Your task to perform on an android device: Search for "usb-a" on walmart, select the first entry, and add it to the cart. Image 0: 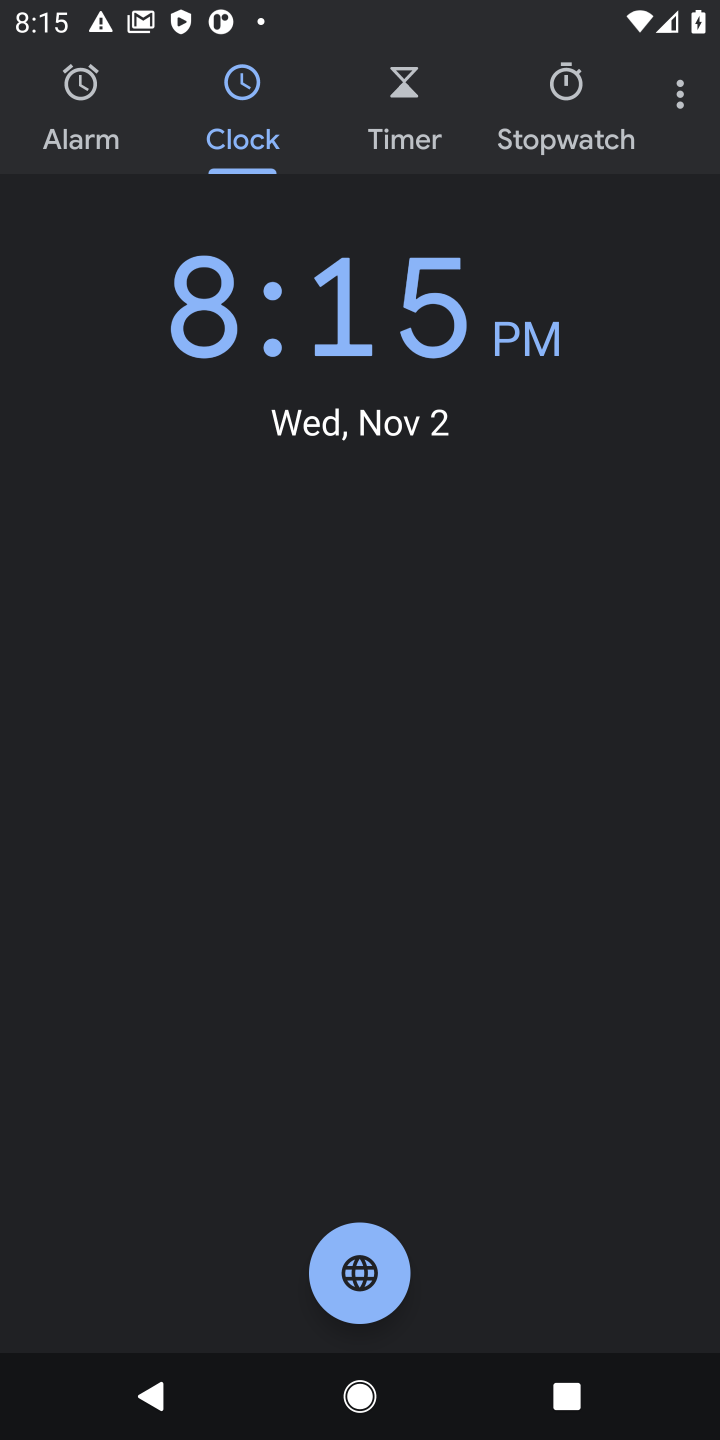
Step 0: press home button
Your task to perform on an android device: Search for "usb-a" on walmart, select the first entry, and add it to the cart. Image 1: 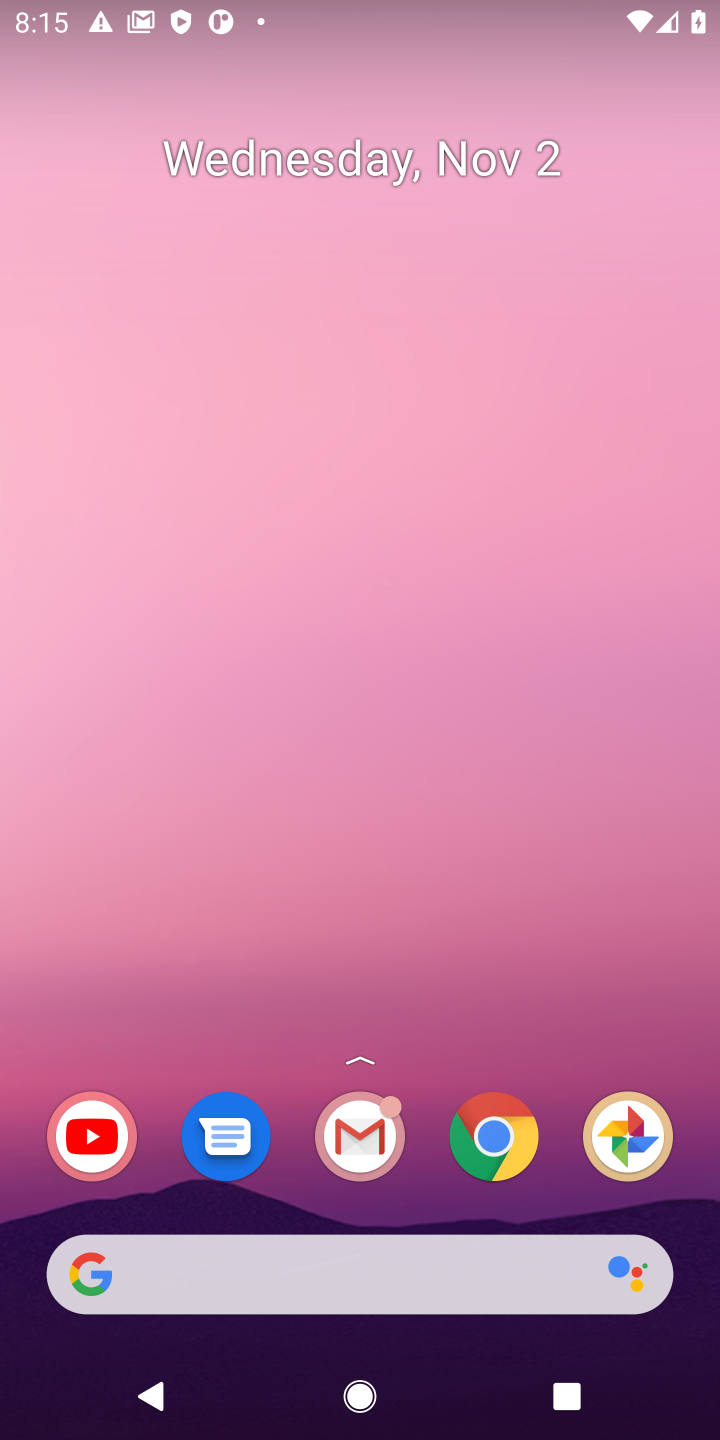
Step 1: drag from (286, 1172) to (476, 134)
Your task to perform on an android device: Search for "usb-a" on walmart, select the first entry, and add it to the cart. Image 2: 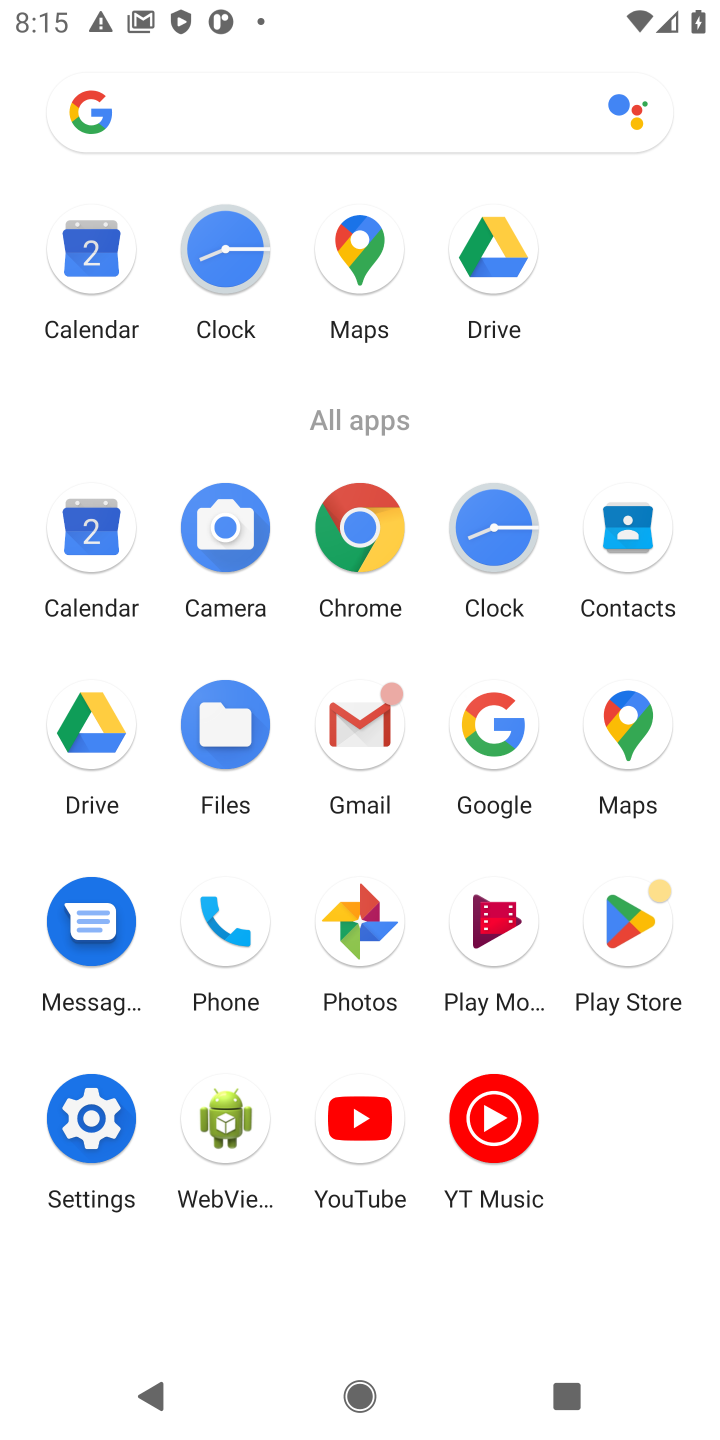
Step 2: click (467, 707)
Your task to perform on an android device: Search for "usb-a" on walmart, select the first entry, and add it to the cart. Image 3: 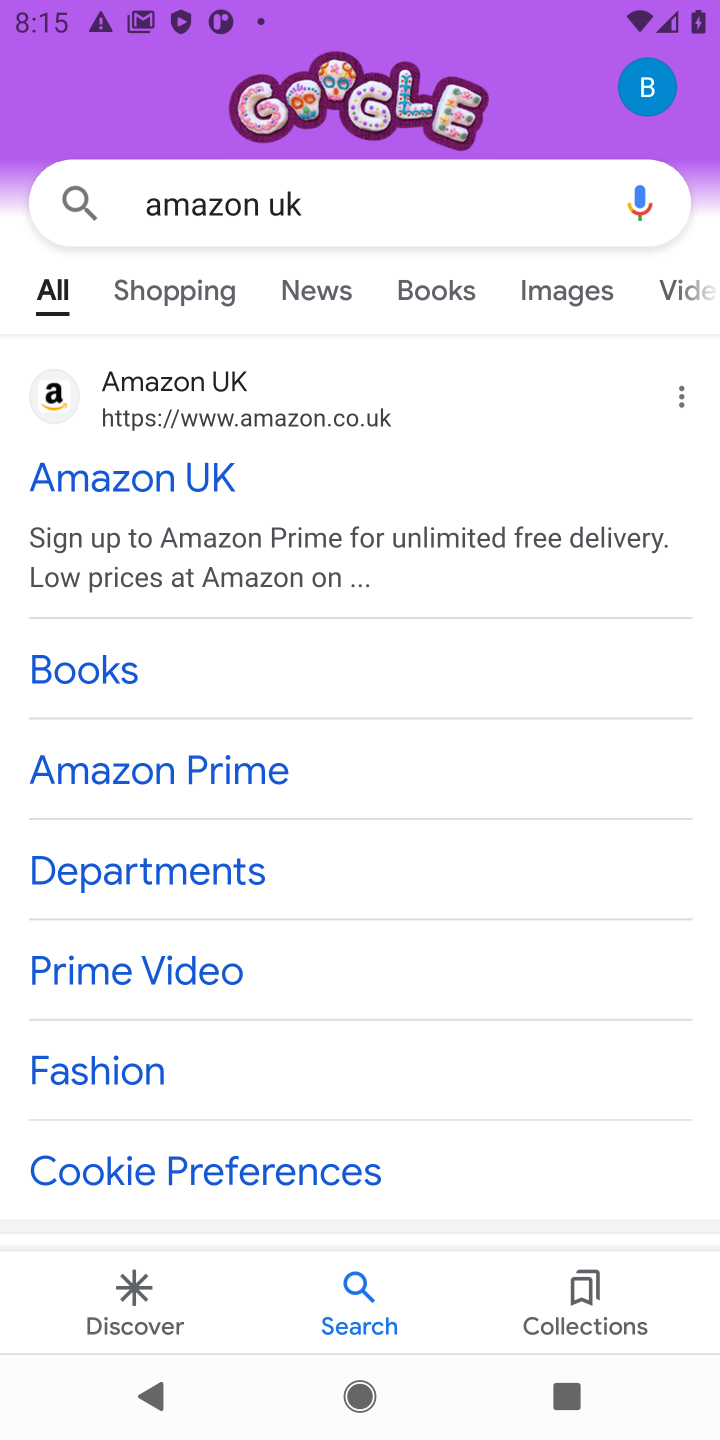
Step 3: click (379, 189)
Your task to perform on an android device: Search for "usb-a" on walmart, select the first entry, and add it to the cart. Image 4: 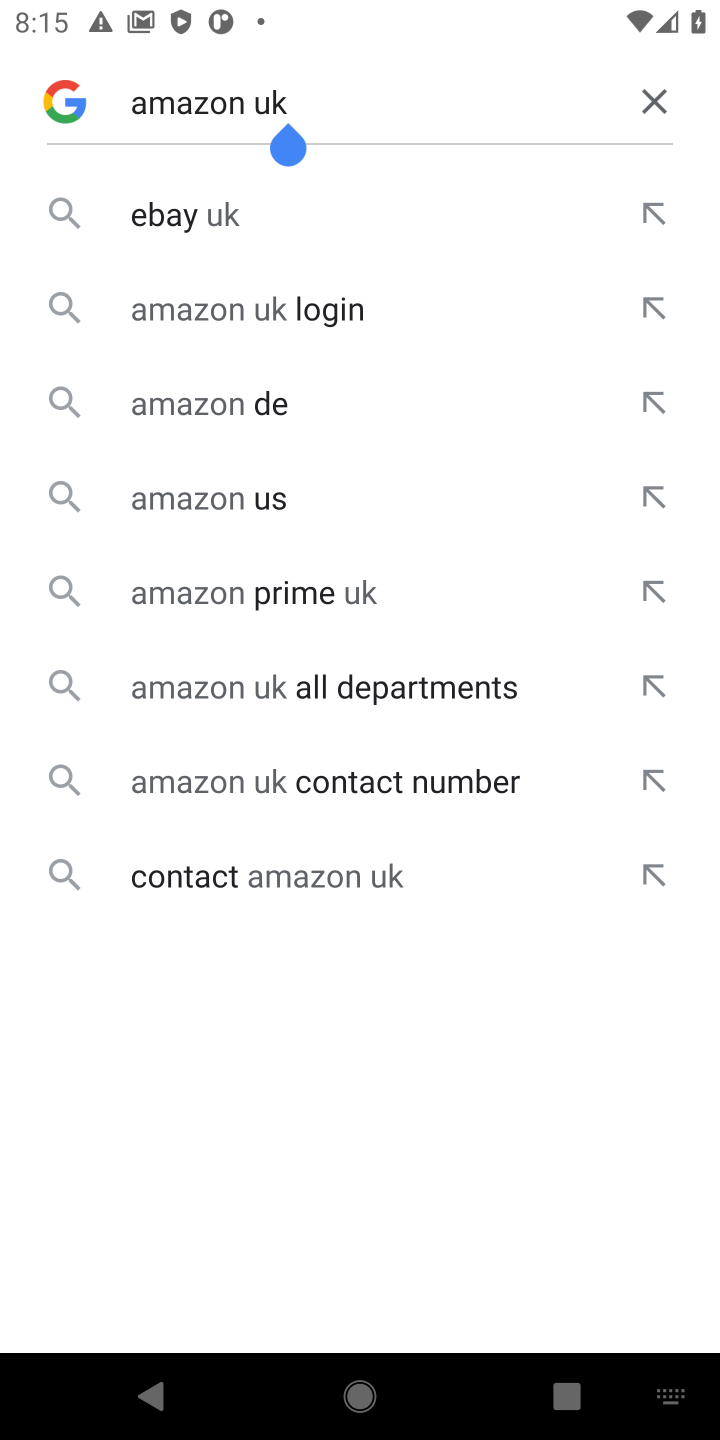
Step 4: click (662, 99)
Your task to perform on an android device: Search for "usb-a" on walmart, select the first entry, and add it to the cart. Image 5: 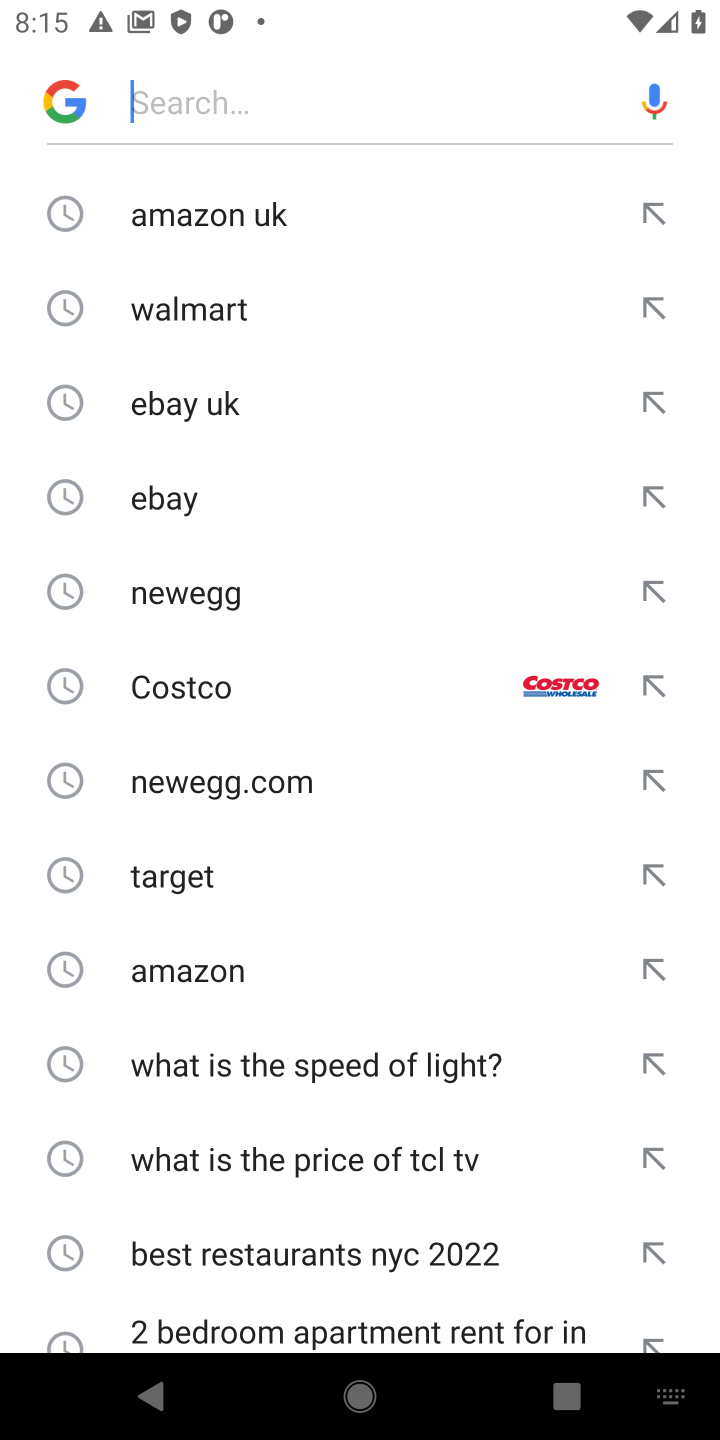
Step 5: click (247, 291)
Your task to perform on an android device: Search for "usb-a" on walmart, select the first entry, and add it to the cart. Image 6: 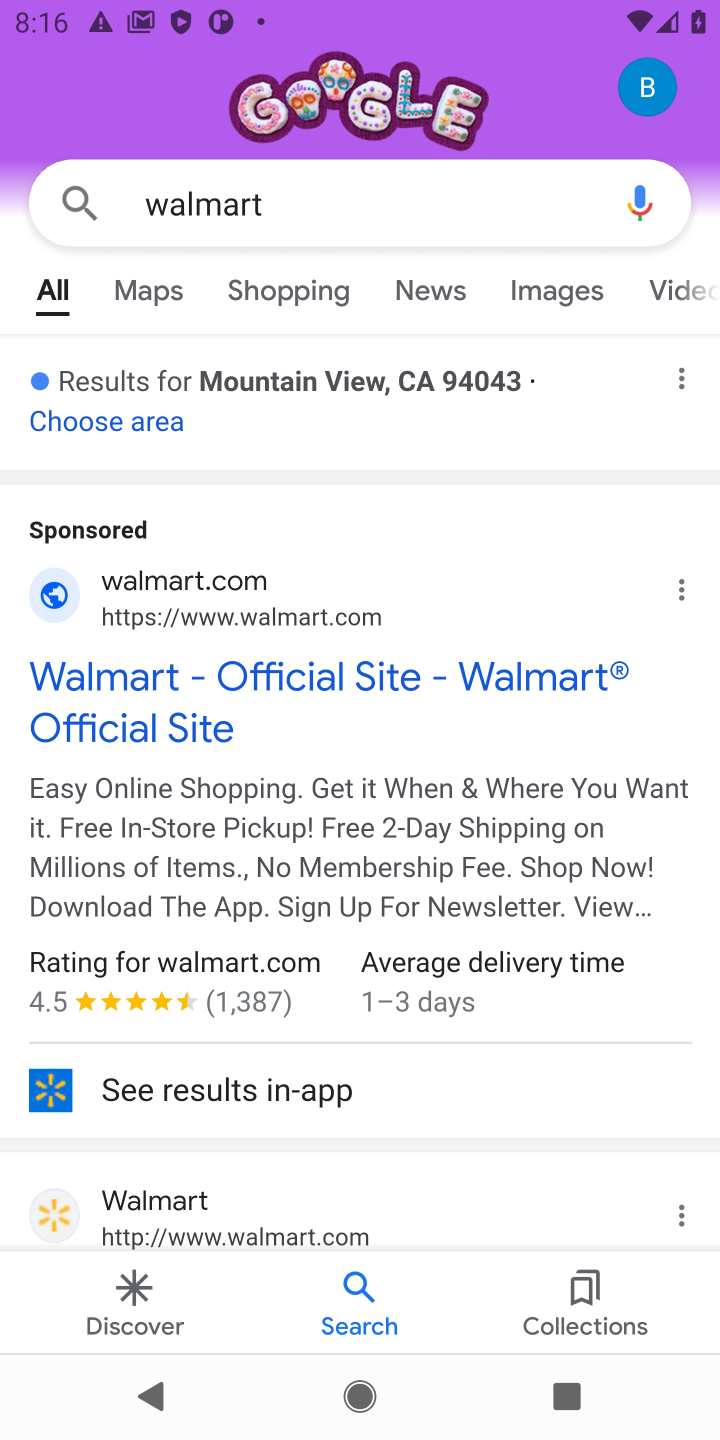
Step 6: drag from (189, 1144) to (236, 725)
Your task to perform on an android device: Search for "usb-a" on walmart, select the first entry, and add it to the cart. Image 7: 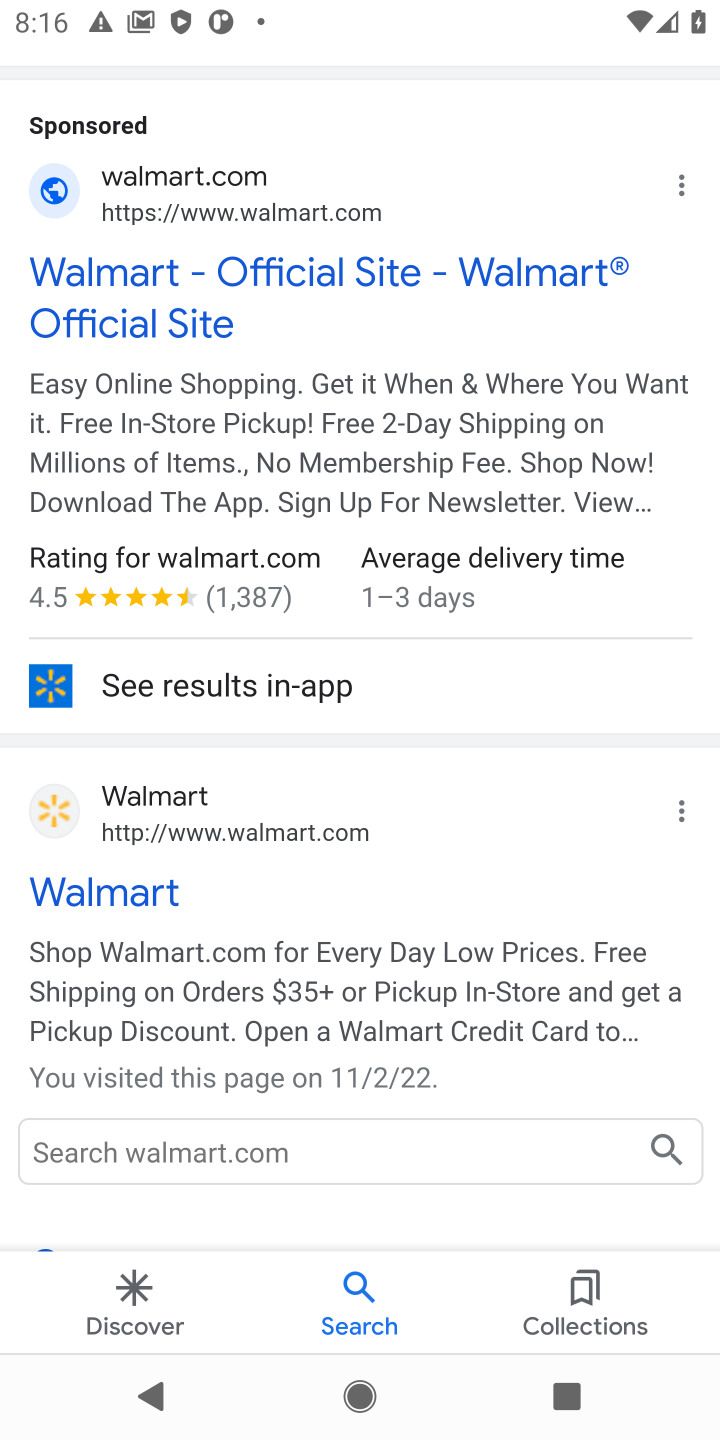
Step 7: click (54, 826)
Your task to perform on an android device: Search for "usb-a" on walmart, select the first entry, and add it to the cart. Image 8: 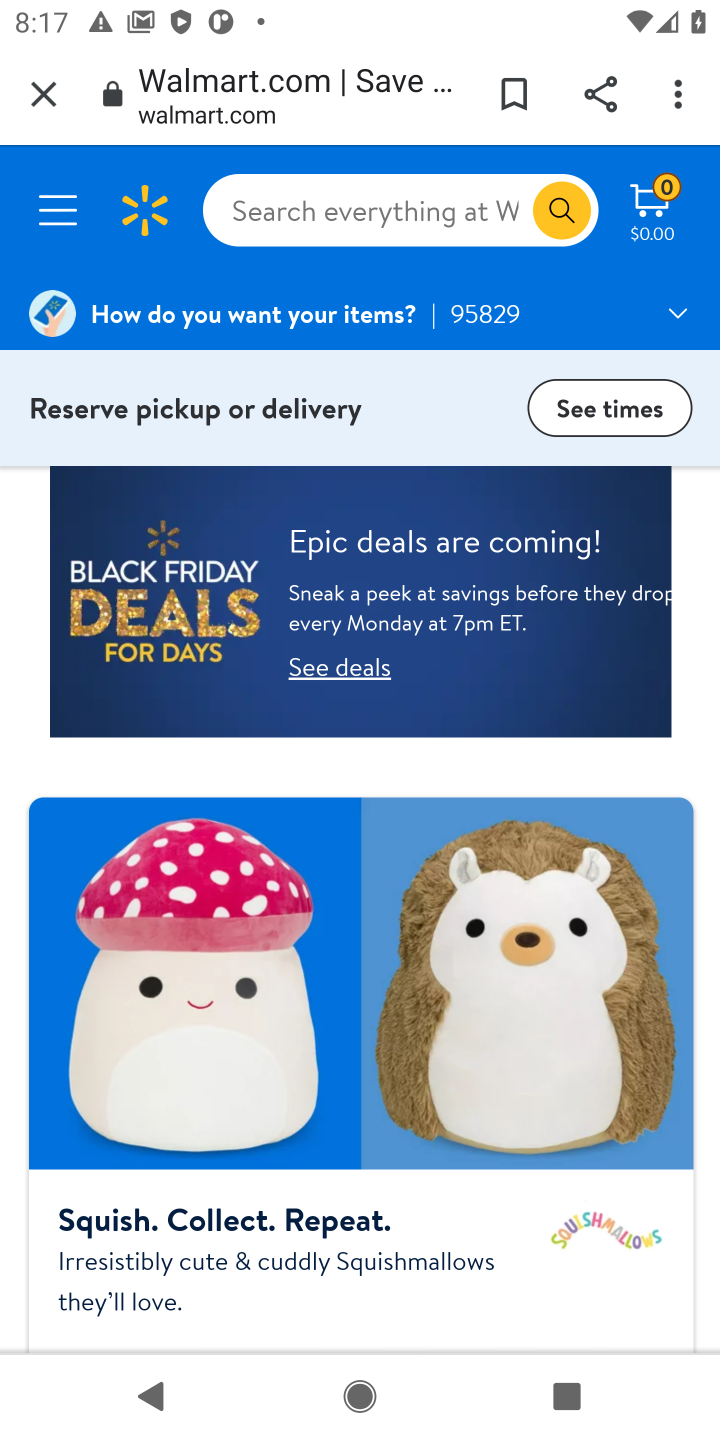
Step 8: click (417, 190)
Your task to perform on an android device: Search for "usb-a" on walmart, select the first entry, and add it to the cart. Image 9: 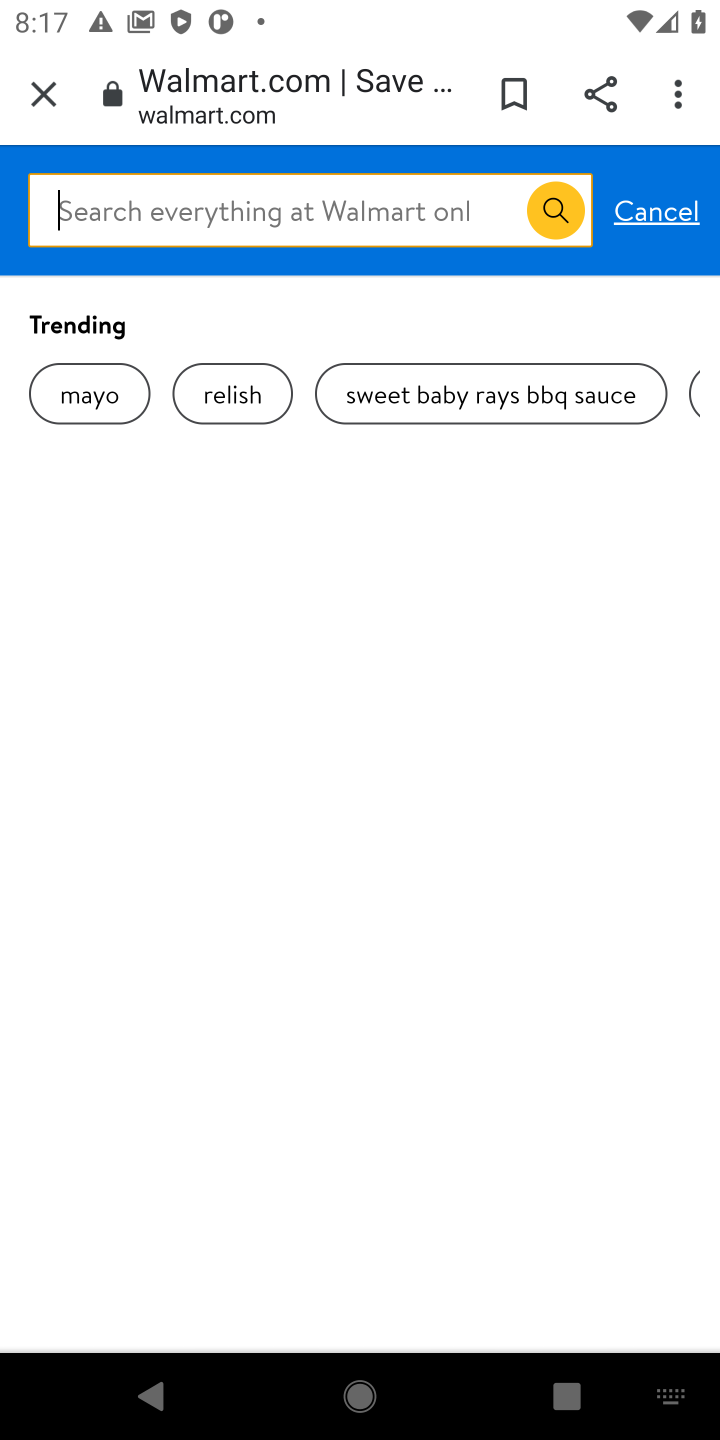
Step 9: type "usb-a "
Your task to perform on an android device: Search for "usb-a" on walmart, select the first entry, and add it to the cart. Image 10: 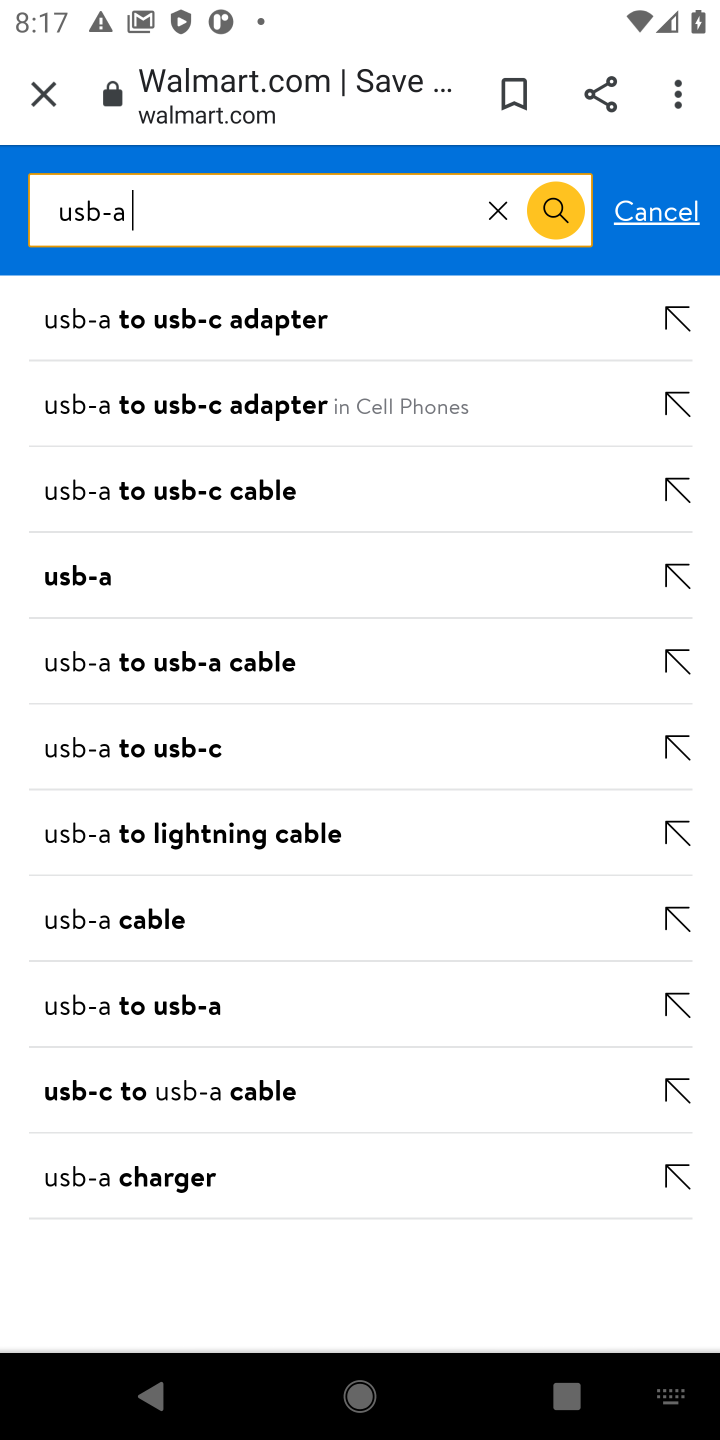
Step 10: click (202, 590)
Your task to perform on an android device: Search for "usb-a" on walmart, select the first entry, and add it to the cart. Image 11: 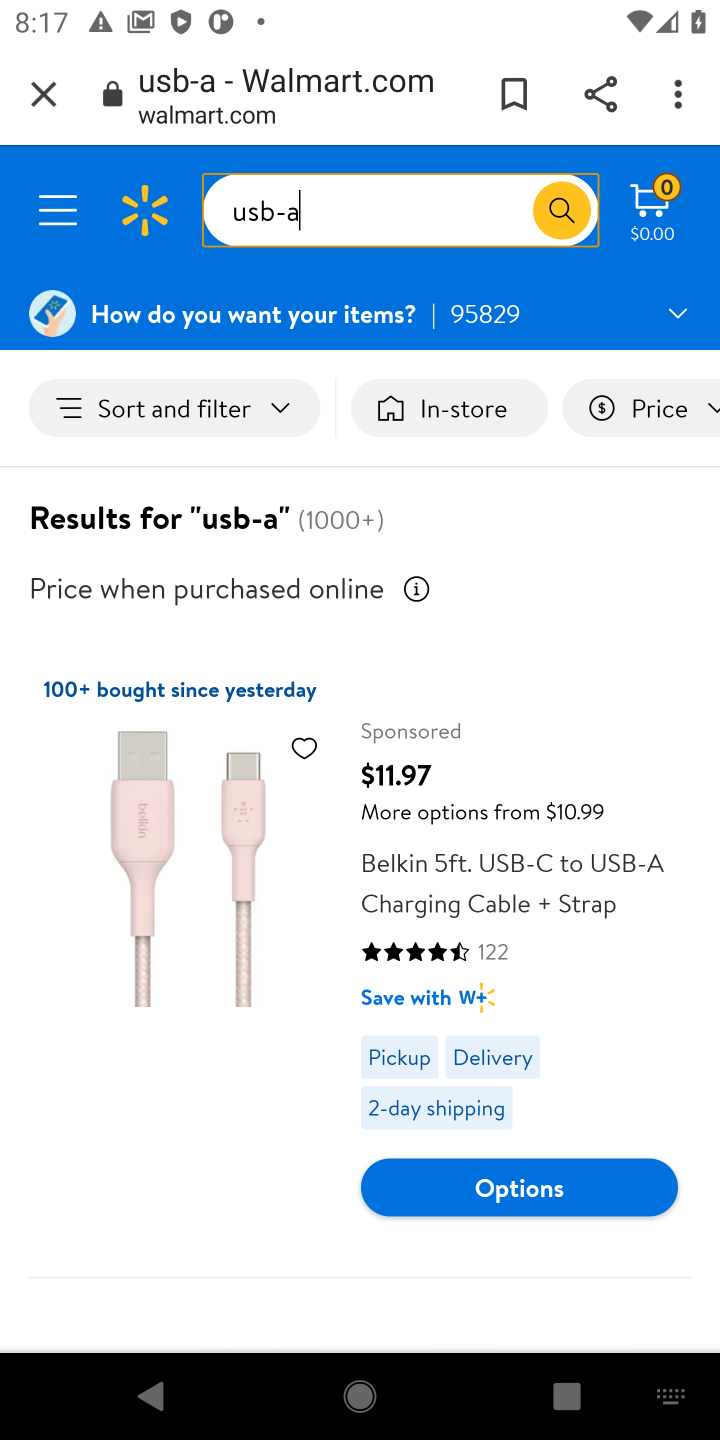
Step 11: drag from (489, 1022) to (508, 691)
Your task to perform on an android device: Search for "usb-a" on walmart, select the first entry, and add it to the cart. Image 12: 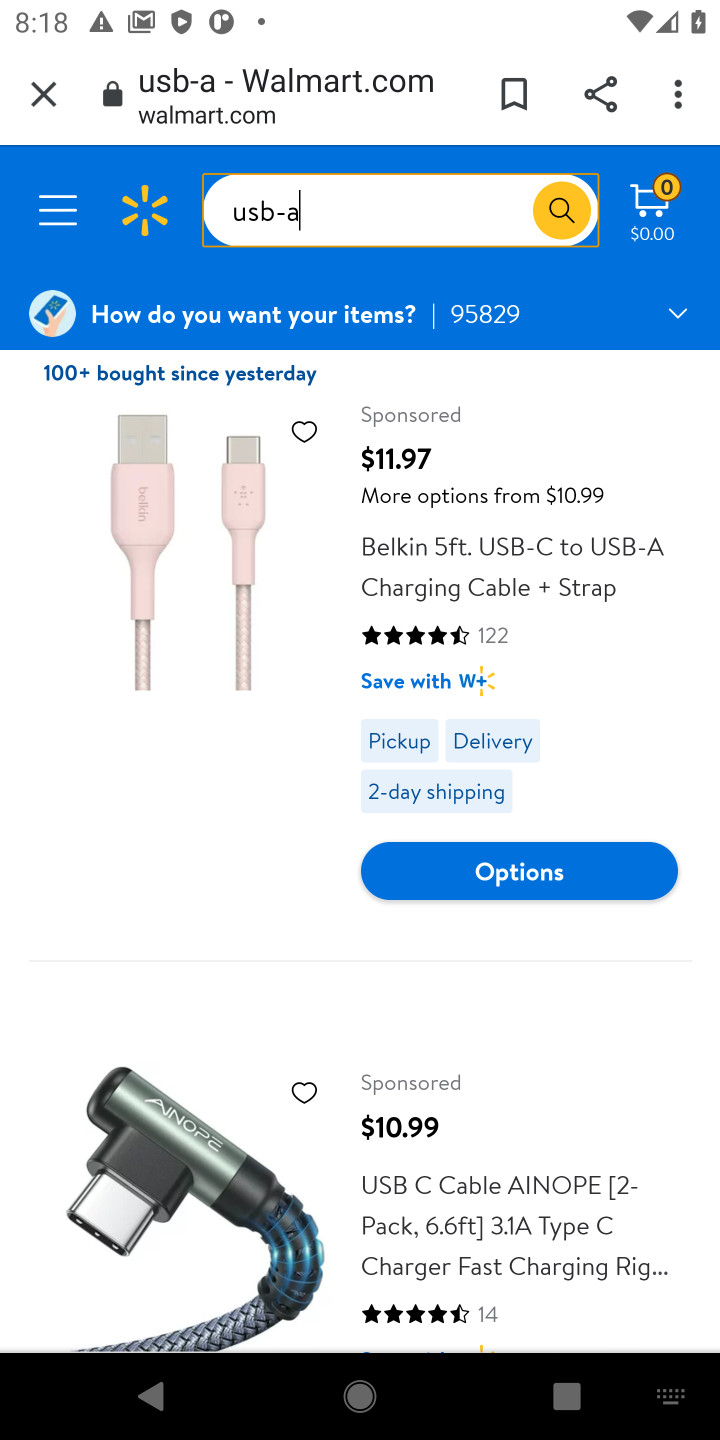
Step 12: click (457, 511)
Your task to perform on an android device: Search for "usb-a" on walmart, select the first entry, and add it to the cart. Image 13: 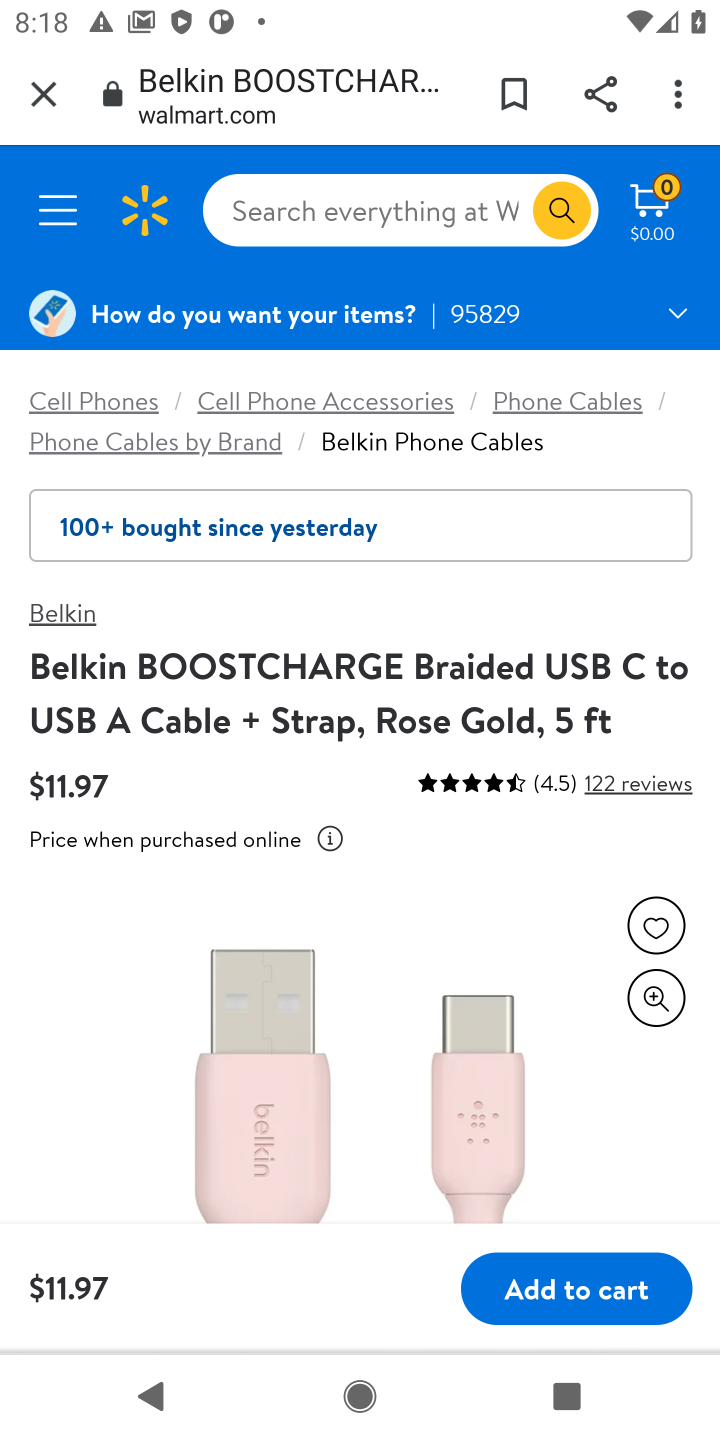
Step 13: click (549, 1295)
Your task to perform on an android device: Search for "usb-a" on walmart, select the first entry, and add it to the cart. Image 14: 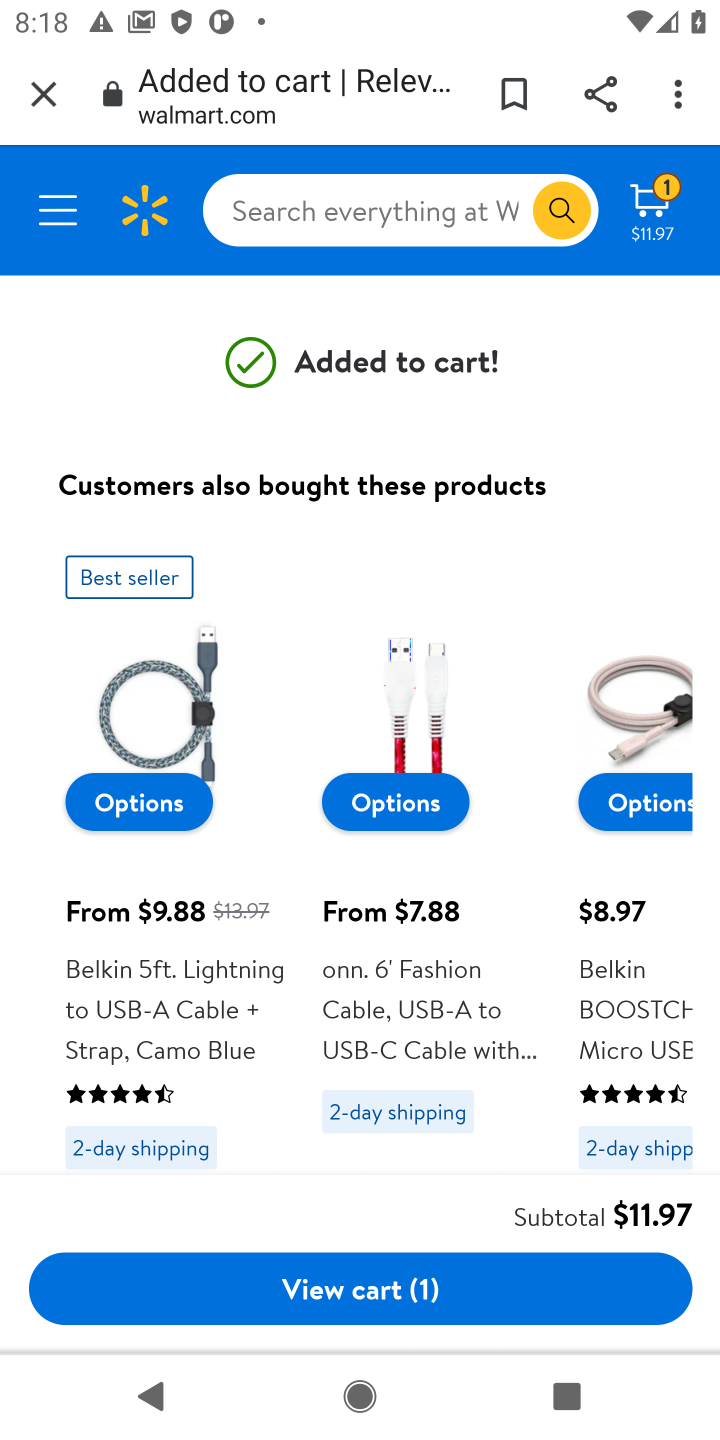
Step 14: task complete